Your task to perform on an android device: clear history in the chrome app Image 0: 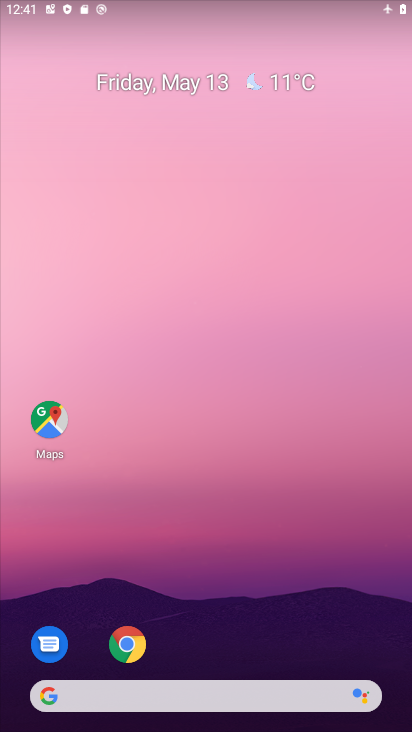
Step 0: click (126, 646)
Your task to perform on an android device: clear history in the chrome app Image 1: 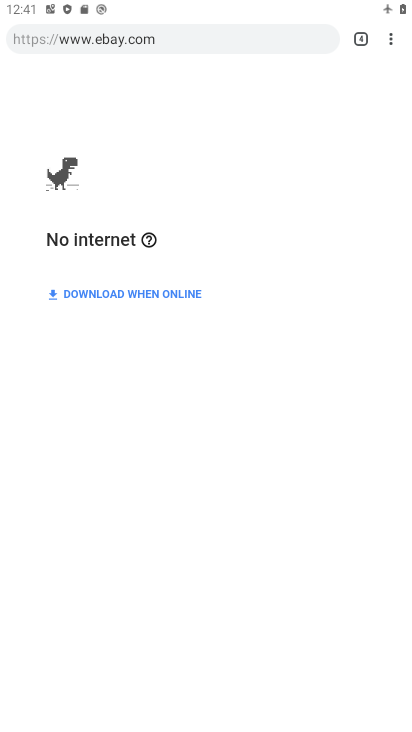
Step 1: click (390, 42)
Your task to perform on an android device: clear history in the chrome app Image 2: 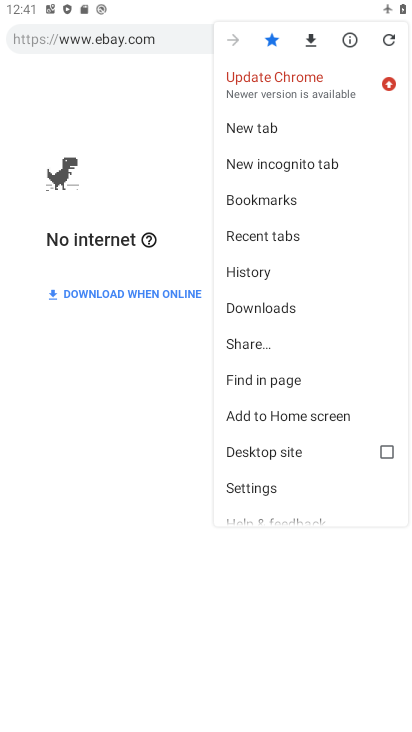
Step 2: click (257, 268)
Your task to perform on an android device: clear history in the chrome app Image 3: 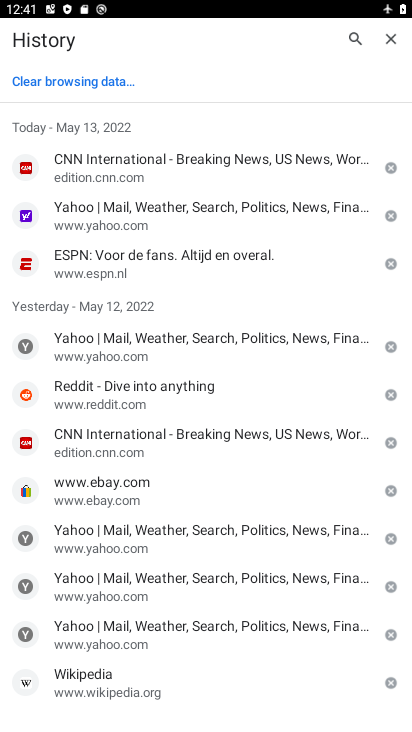
Step 3: click (76, 78)
Your task to perform on an android device: clear history in the chrome app Image 4: 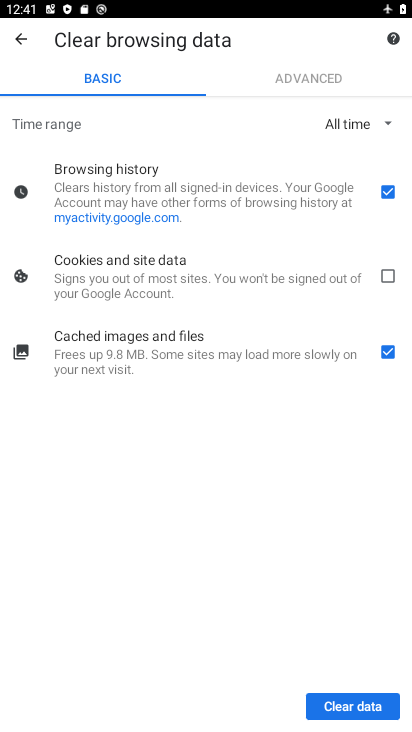
Step 4: click (386, 355)
Your task to perform on an android device: clear history in the chrome app Image 5: 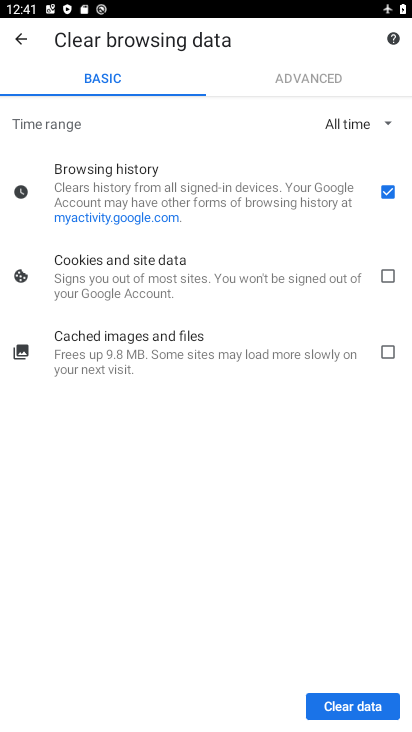
Step 5: click (362, 704)
Your task to perform on an android device: clear history in the chrome app Image 6: 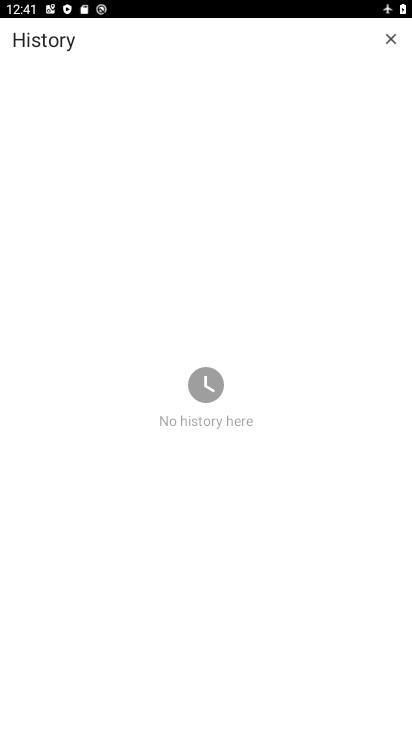
Step 6: task complete